Your task to perform on an android device: Open settings Image 0: 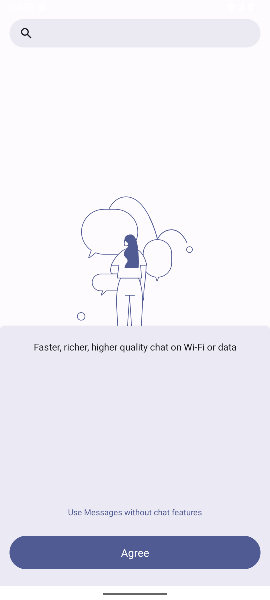
Step 0: click (93, 71)
Your task to perform on an android device: Open settings Image 1: 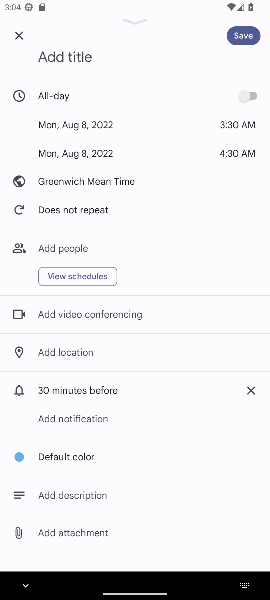
Step 1: press home button
Your task to perform on an android device: Open settings Image 2: 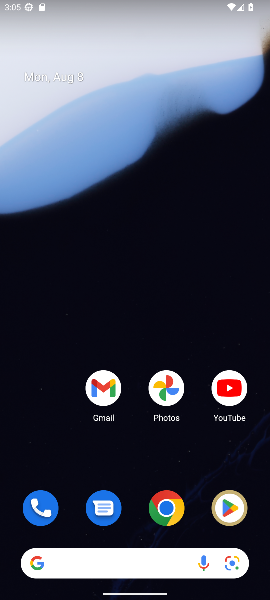
Step 2: drag from (132, 463) to (145, 2)
Your task to perform on an android device: Open settings Image 3: 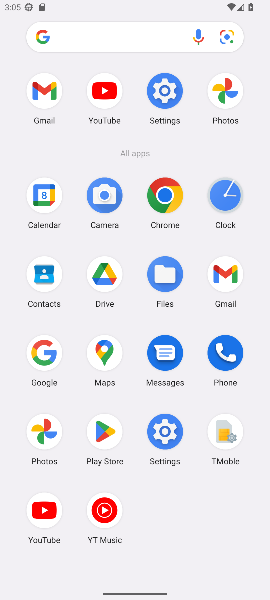
Step 3: click (166, 90)
Your task to perform on an android device: Open settings Image 4: 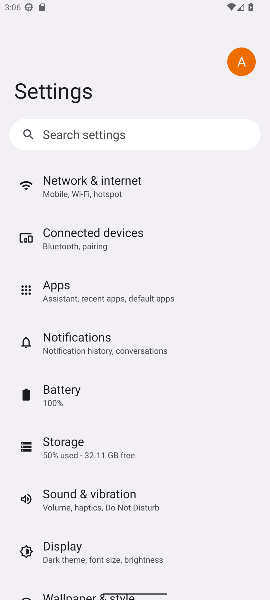
Step 4: task complete